Your task to perform on an android device: turn pop-ups on in chrome Image 0: 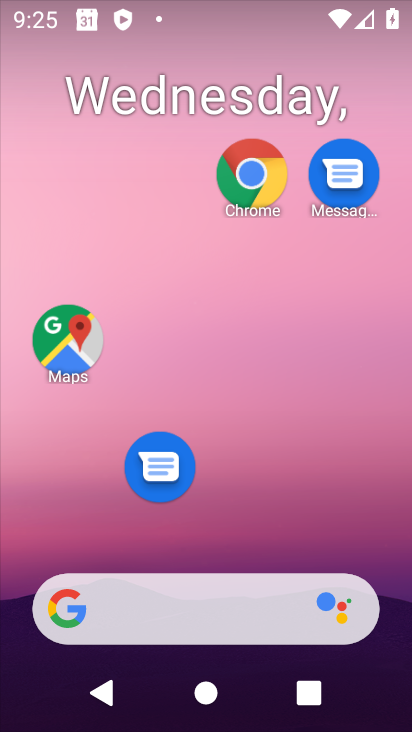
Step 0: drag from (291, 604) to (138, 204)
Your task to perform on an android device: turn pop-ups on in chrome Image 1: 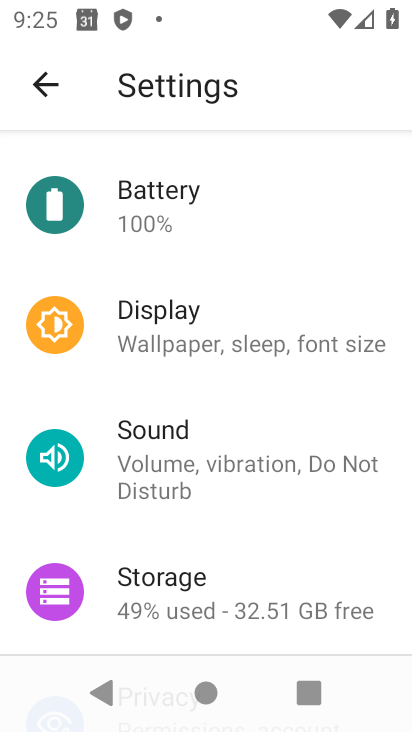
Step 1: click (42, 75)
Your task to perform on an android device: turn pop-ups on in chrome Image 2: 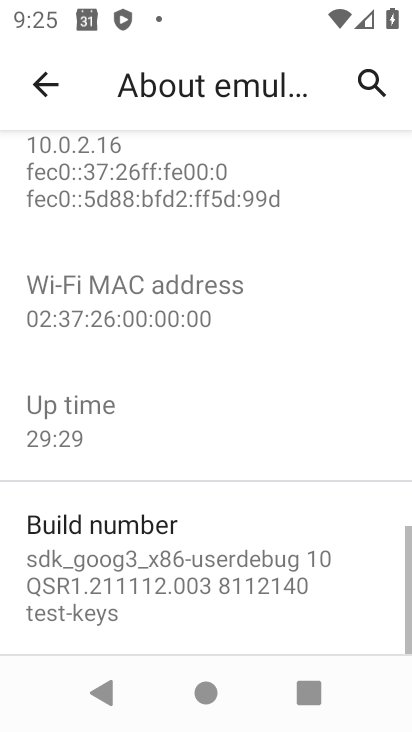
Step 2: click (37, 82)
Your task to perform on an android device: turn pop-ups on in chrome Image 3: 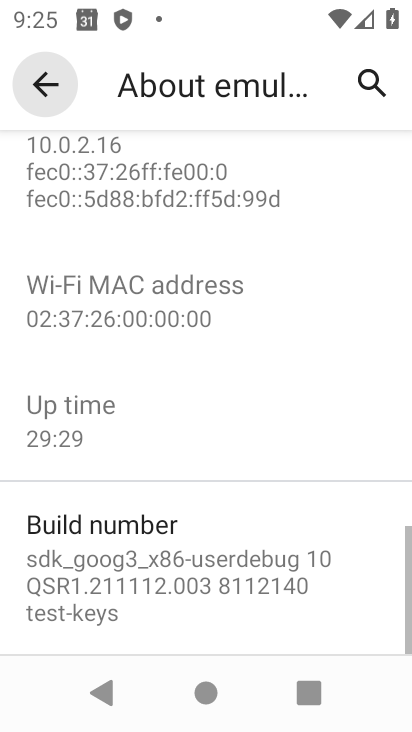
Step 3: click (37, 82)
Your task to perform on an android device: turn pop-ups on in chrome Image 4: 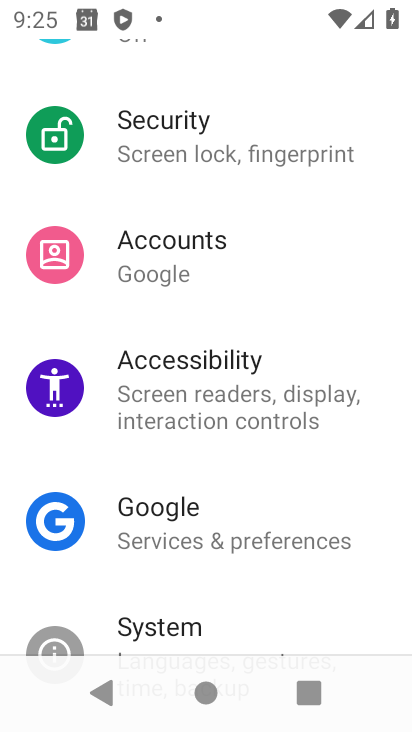
Step 4: press back button
Your task to perform on an android device: turn pop-ups on in chrome Image 5: 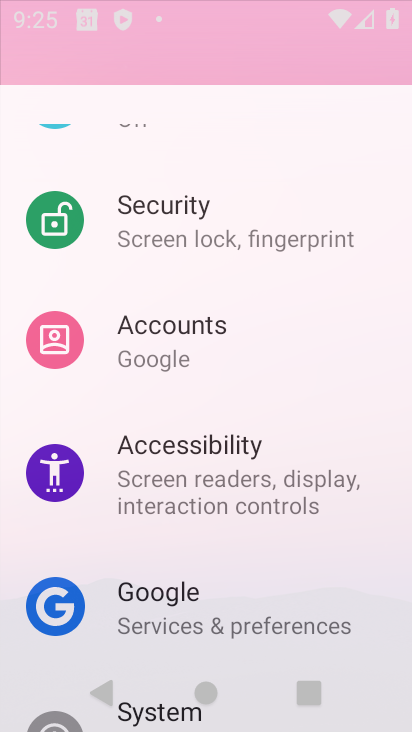
Step 5: press back button
Your task to perform on an android device: turn pop-ups on in chrome Image 6: 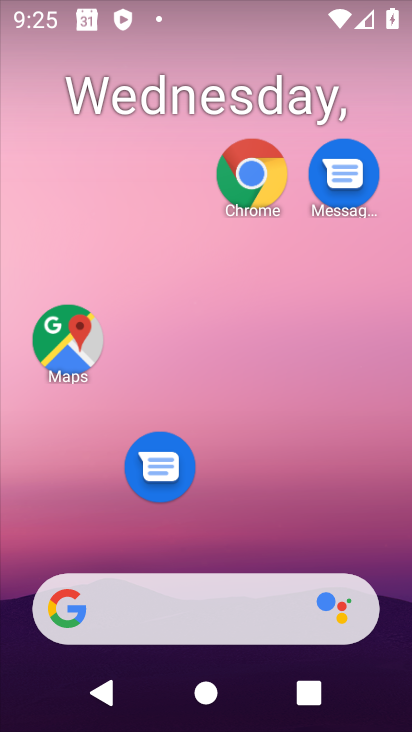
Step 6: drag from (338, 602) to (121, 73)
Your task to perform on an android device: turn pop-ups on in chrome Image 7: 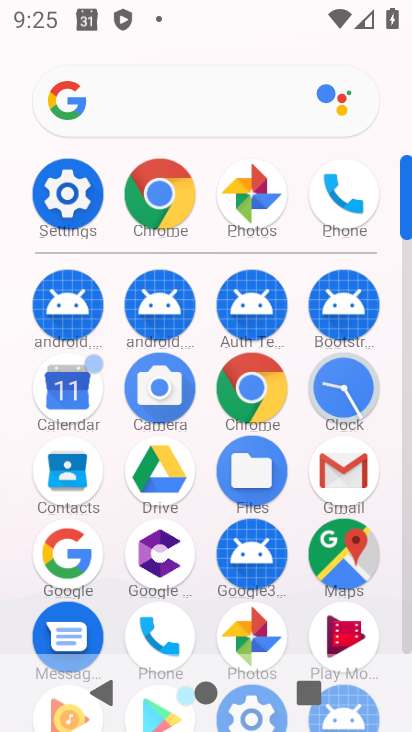
Step 7: click (154, 193)
Your task to perform on an android device: turn pop-ups on in chrome Image 8: 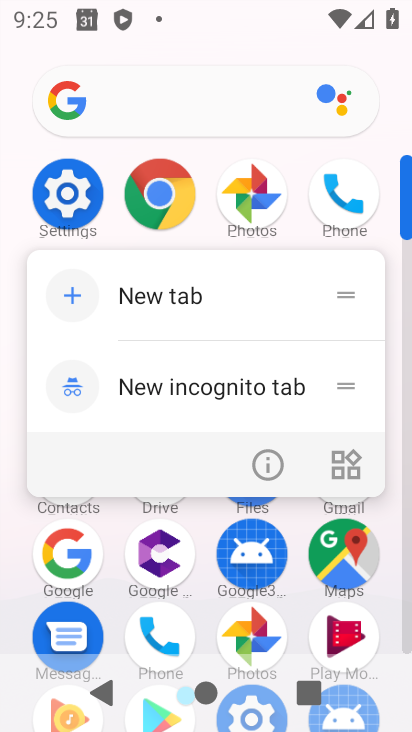
Step 8: click (157, 199)
Your task to perform on an android device: turn pop-ups on in chrome Image 9: 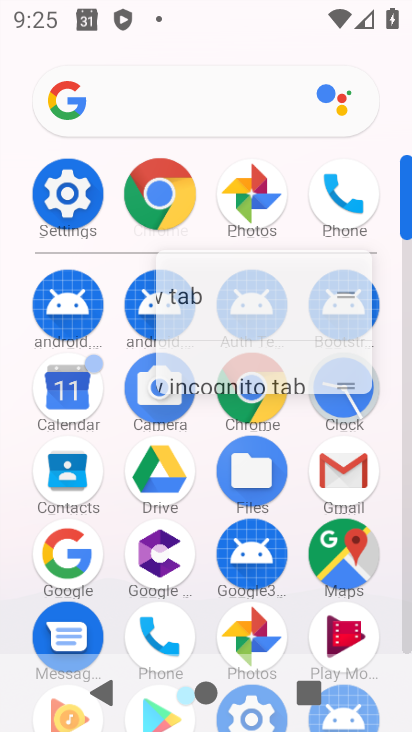
Step 9: click (158, 195)
Your task to perform on an android device: turn pop-ups on in chrome Image 10: 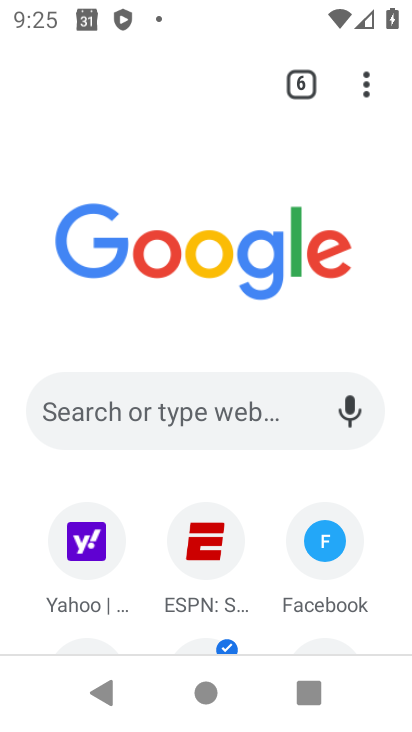
Step 10: click (156, 186)
Your task to perform on an android device: turn pop-ups on in chrome Image 11: 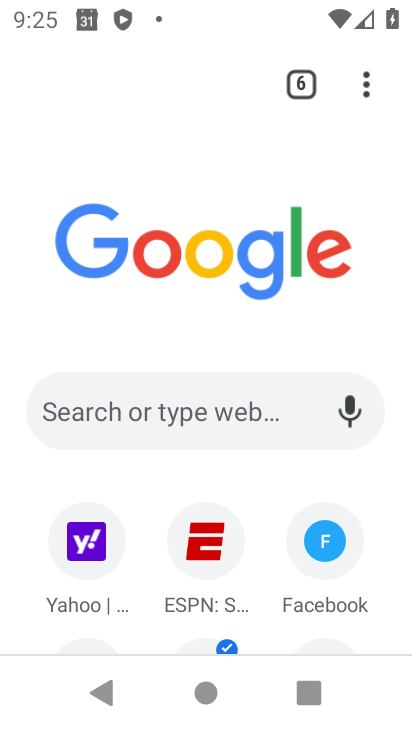
Step 11: click (156, 170)
Your task to perform on an android device: turn pop-ups on in chrome Image 12: 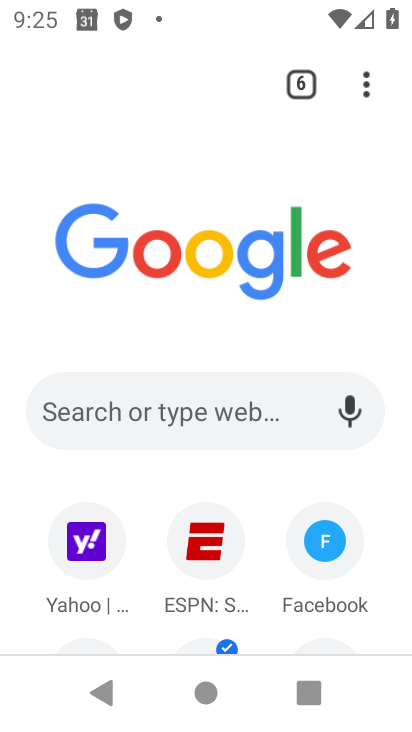
Step 12: click (364, 91)
Your task to perform on an android device: turn pop-ups on in chrome Image 13: 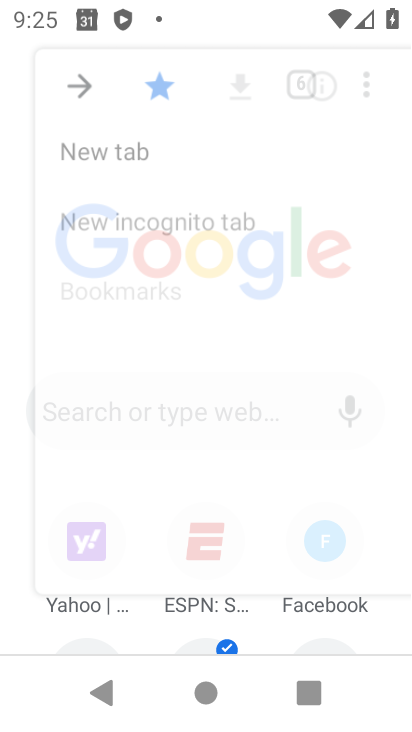
Step 13: drag from (364, 91) to (81, 545)
Your task to perform on an android device: turn pop-ups on in chrome Image 14: 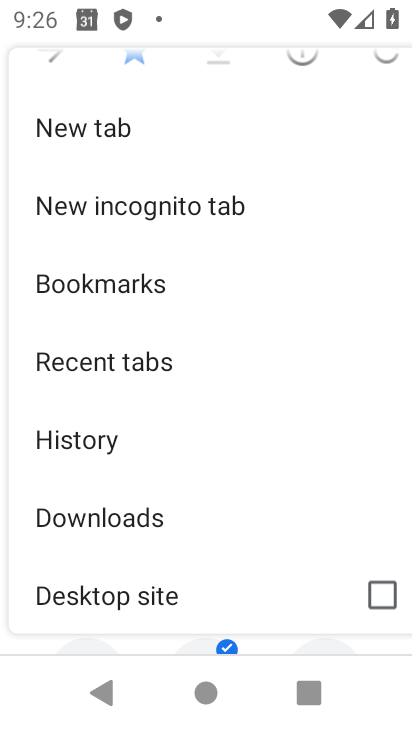
Step 14: drag from (84, 540) to (60, 39)
Your task to perform on an android device: turn pop-ups on in chrome Image 15: 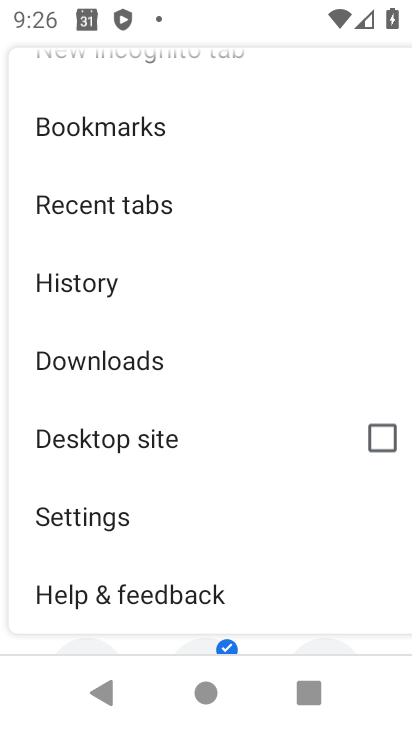
Step 15: click (79, 511)
Your task to perform on an android device: turn pop-ups on in chrome Image 16: 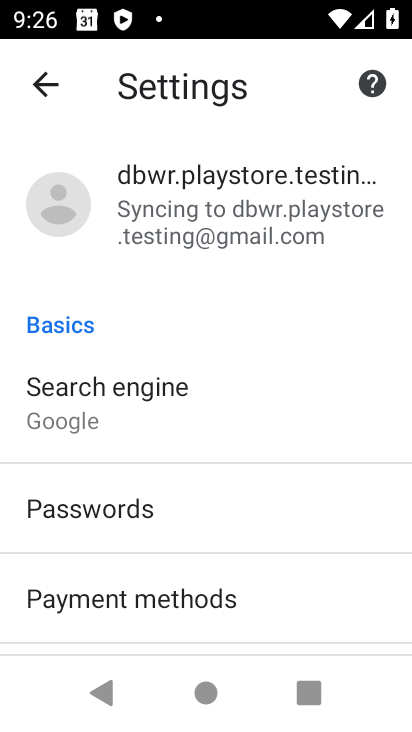
Step 16: drag from (160, 527) to (99, 37)
Your task to perform on an android device: turn pop-ups on in chrome Image 17: 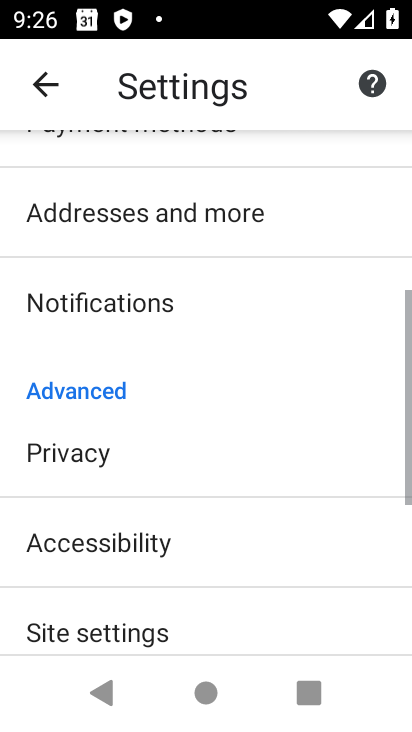
Step 17: drag from (211, 529) to (228, 159)
Your task to perform on an android device: turn pop-ups on in chrome Image 18: 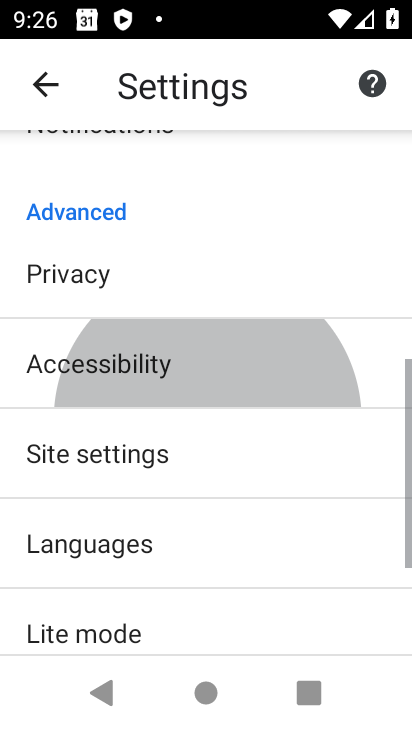
Step 18: drag from (205, 527) to (155, 9)
Your task to perform on an android device: turn pop-ups on in chrome Image 19: 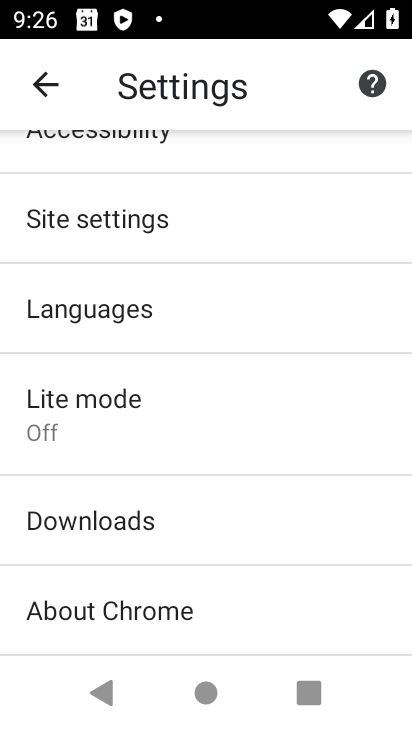
Step 19: click (86, 224)
Your task to perform on an android device: turn pop-ups on in chrome Image 20: 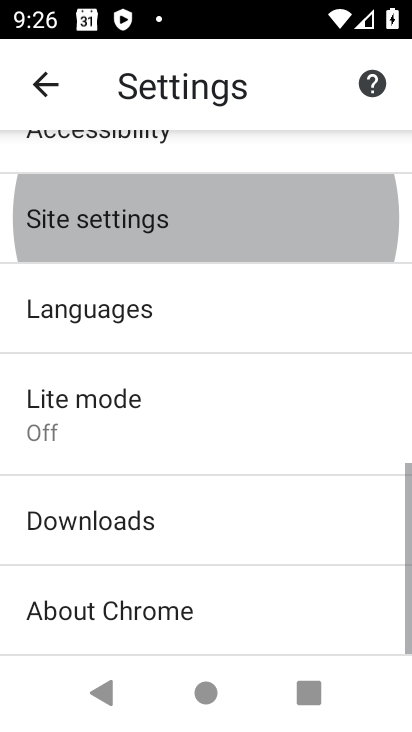
Step 20: click (86, 223)
Your task to perform on an android device: turn pop-ups on in chrome Image 21: 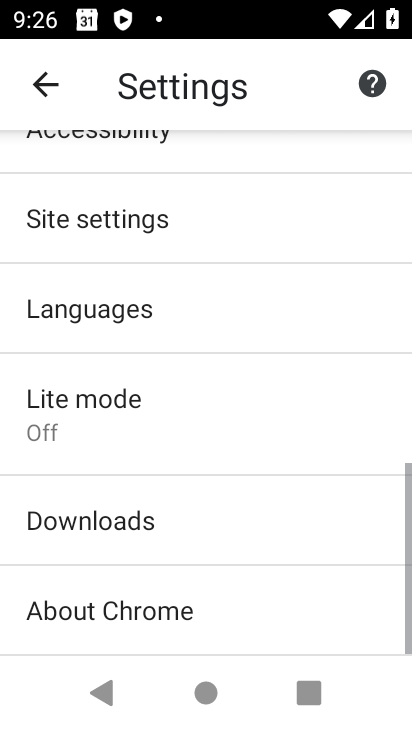
Step 21: click (83, 222)
Your task to perform on an android device: turn pop-ups on in chrome Image 22: 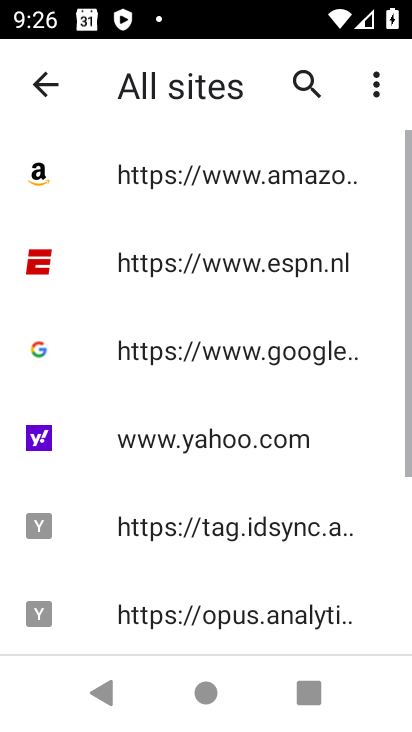
Step 22: click (31, 70)
Your task to perform on an android device: turn pop-ups on in chrome Image 23: 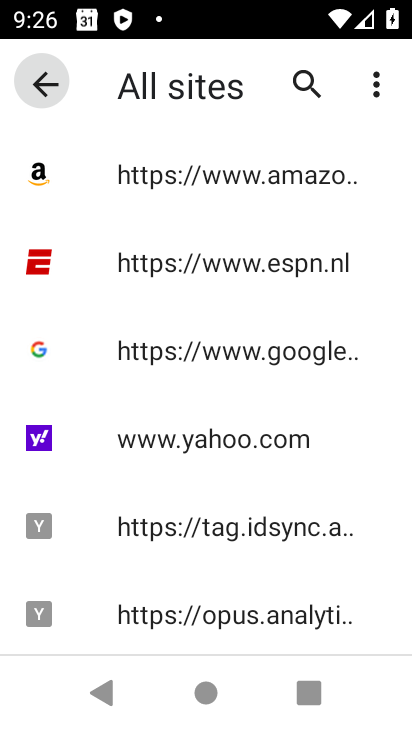
Step 23: click (31, 71)
Your task to perform on an android device: turn pop-ups on in chrome Image 24: 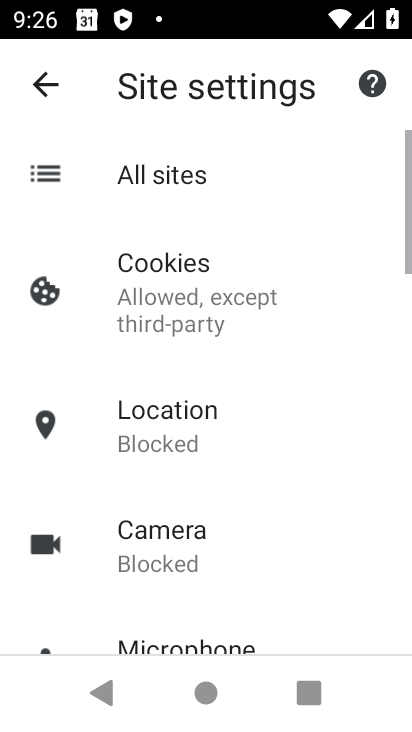
Step 24: drag from (214, 453) to (165, 182)
Your task to perform on an android device: turn pop-ups on in chrome Image 25: 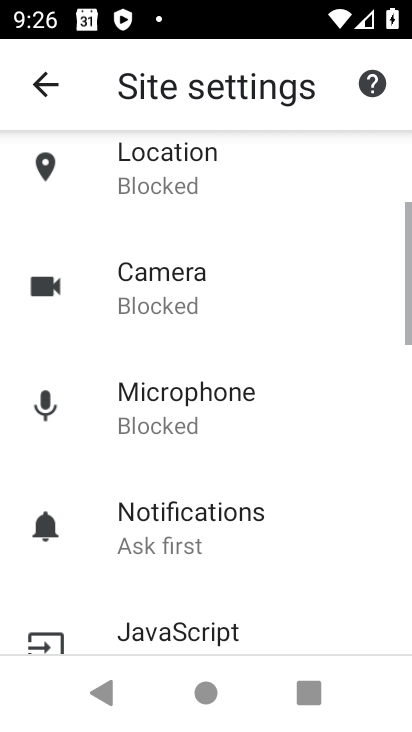
Step 25: drag from (265, 535) to (156, 190)
Your task to perform on an android device: turn pop-ups on in chrome Image 26: 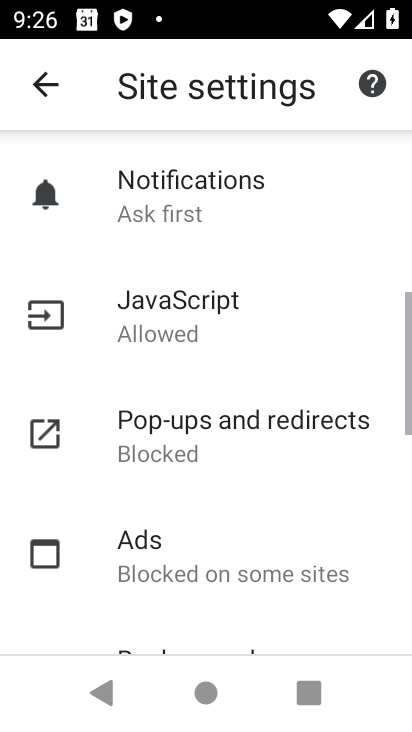
Step 26: drag from (231, 513) to (196, 117)
Your task to perform on an android device: turn pop-ups on in chrome Image 27: 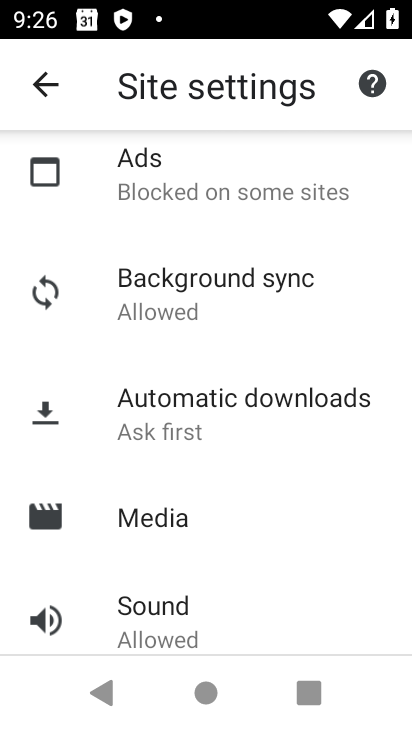
Step 27: drag from (164, 263) to (249, 374)
Your task to perform on an android device: turn pop-ups on in chrome Image 28: 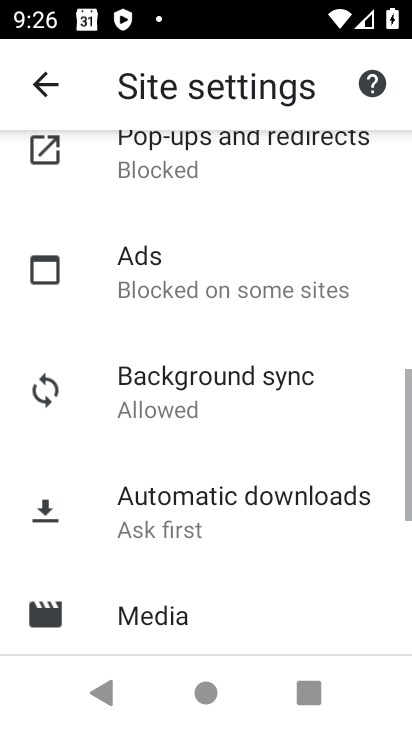
Step 28: drag from (177, 227) to (264, 540)
Your task to perform on an android device: turn pop-ups on in chrome Image 29: 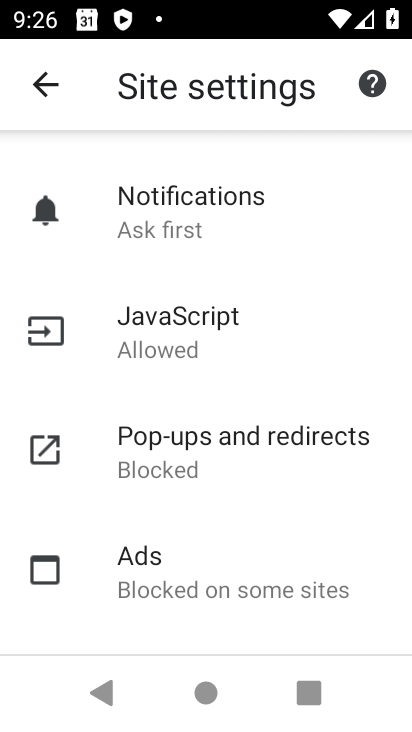
Step 29: click (170, 499)
Your task to perform on an android device: turn pop-ups on in chrome Image 30: 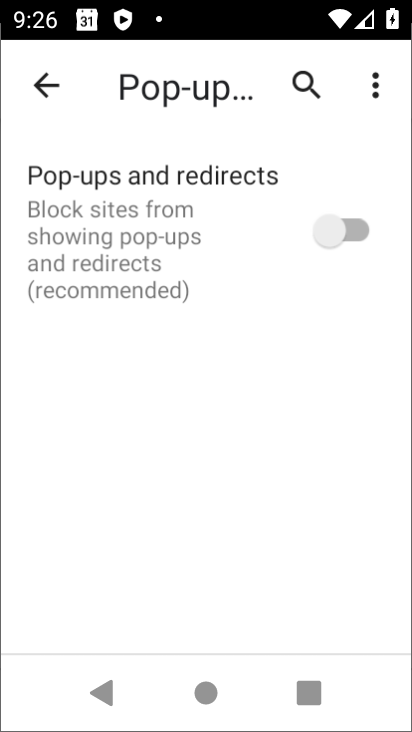
Step 30: click (177, 481)
Your task to perform on an android device: turn pop-ups on in chrome Image 31: 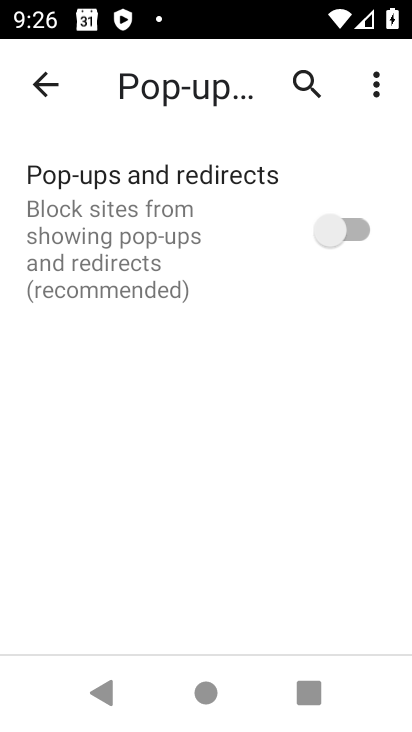
Step 31: click (127, 465)
Your task to perform on an android device: turn pop-ups on in chrome Image 32: 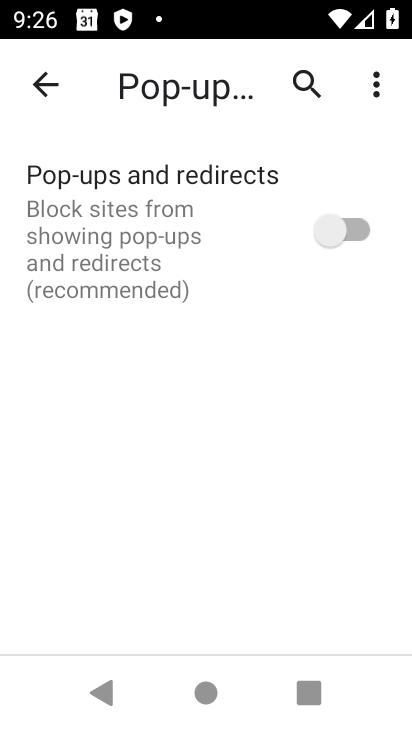
Step 32: click (313, 229)
Your task to perform on an android device: turn pop-ups on in chrome Image 33: 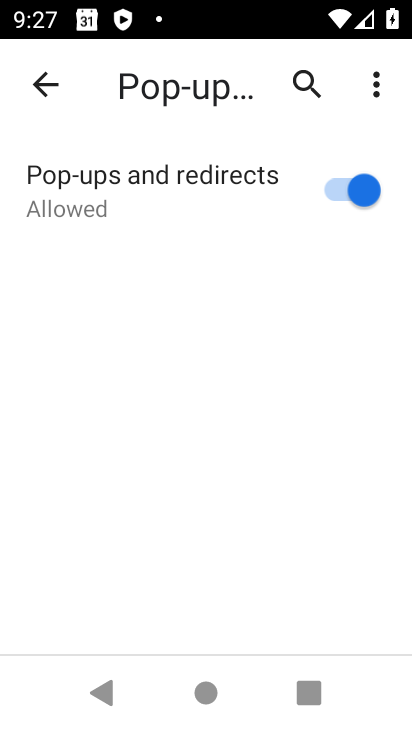
Step 33: task complete